Your task to perform on an android device: Open Google Image 0: 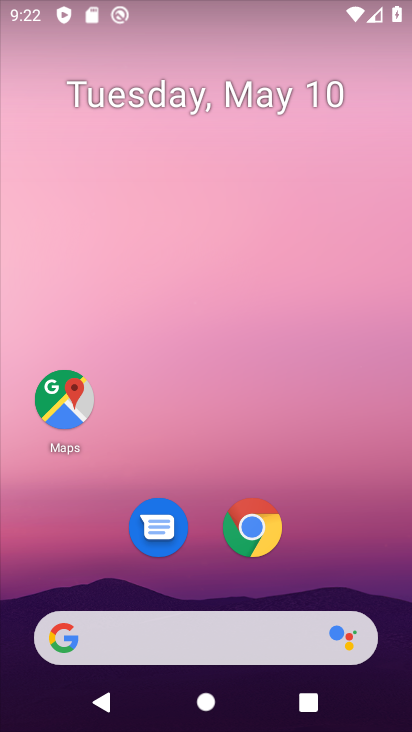
Step 0: drag from (223, 726) to (146, 152)
Your task to perform on an android device: Open Google Image 1: 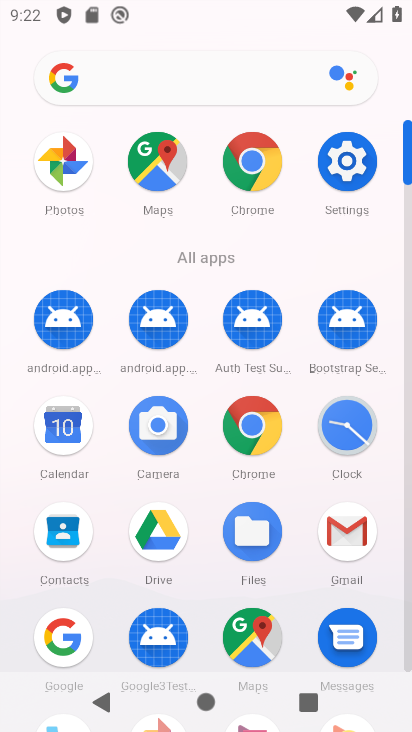
Step 1: click (61, 639)
Your task to perform on an android device: Open Google Image 2: 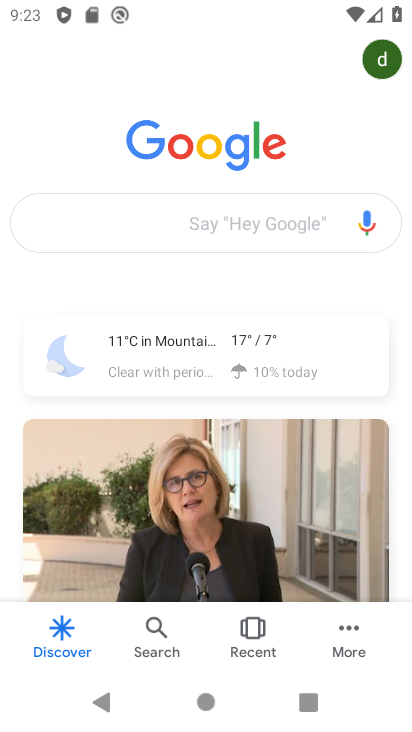
Step 2: task complete